Your task to perform on an android device: Go to settings Image 0: 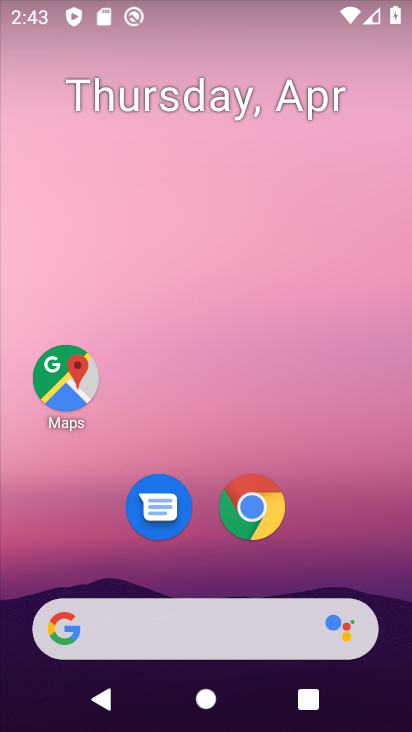
Step 0: drag from (366, 481) to (363, 162)
Your task to perform on an android device: Go to settings Image 1: 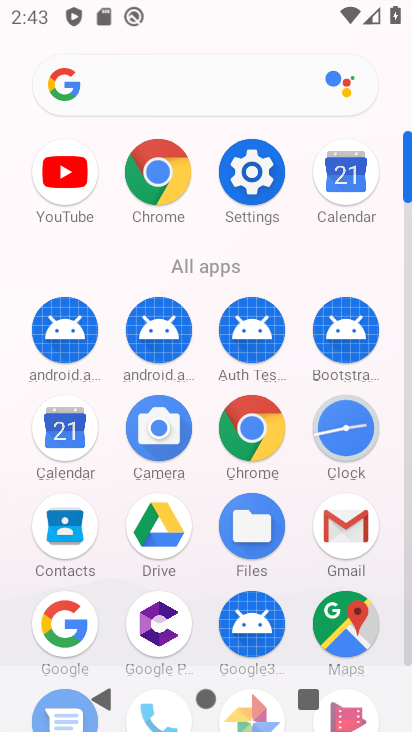
Step 1: click (228, 178)
Your task to perform on an android device: Go to settings Image 2: 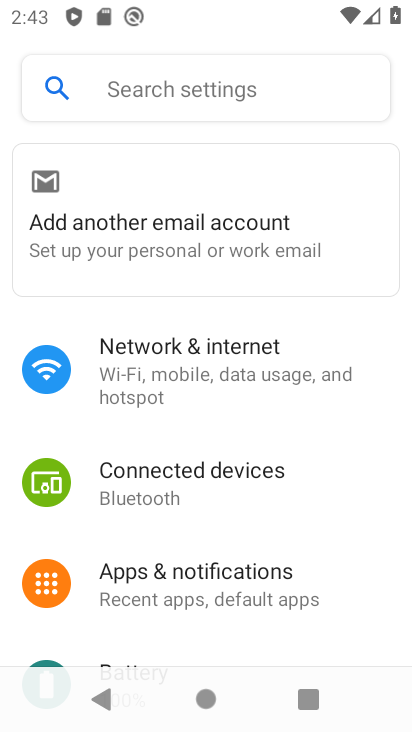
Step 2: task complete